Your task to perform on an android device: turn off picture-in-picture Image 0: 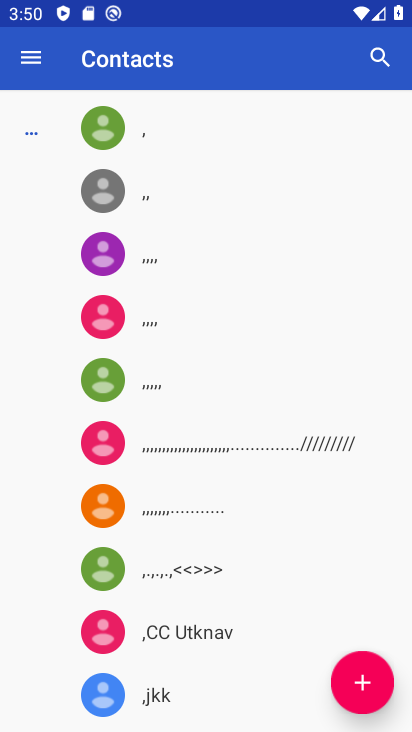
Step 0: press home button
Your task to perform on an android device: turn off picture-in-picture Image 1: 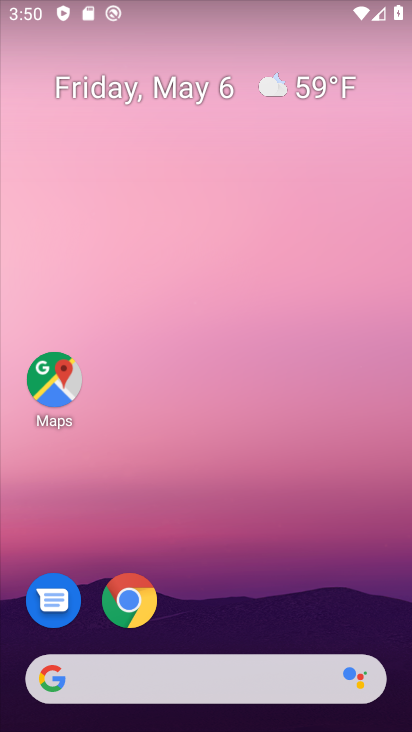
Step 1: drag from (225, 616) to (262, 128)
Your task to perform on an android device: turn off picture-in-picture Image 2: 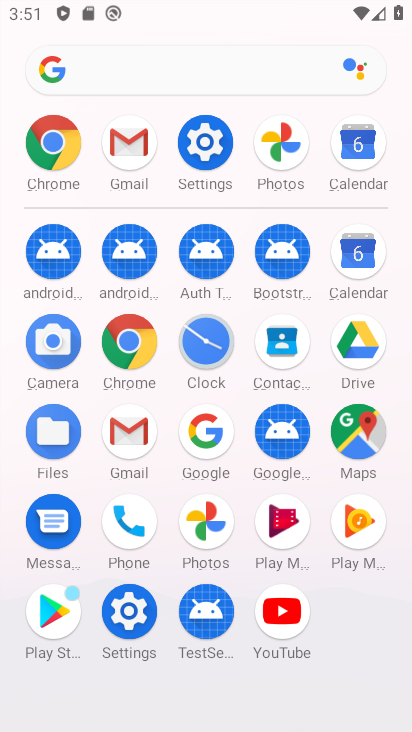
Step 2: click (115, 345)
Your task to perform on an android device: turn off picture-in-picture Image 3: 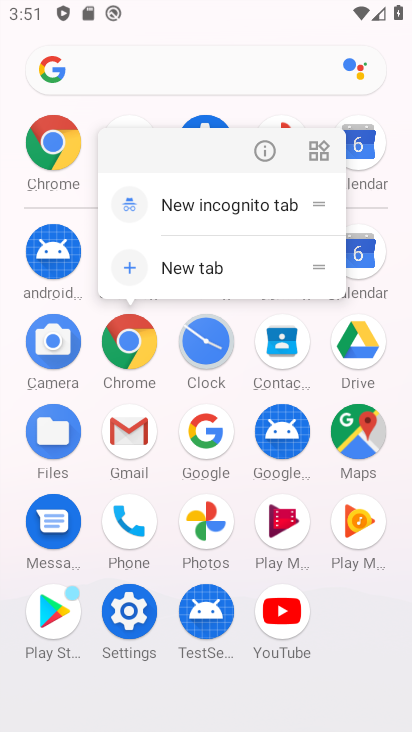
Step 3: click (260, 155)
Your task to perform on an android device: turn off picture-in-picture Image 4: 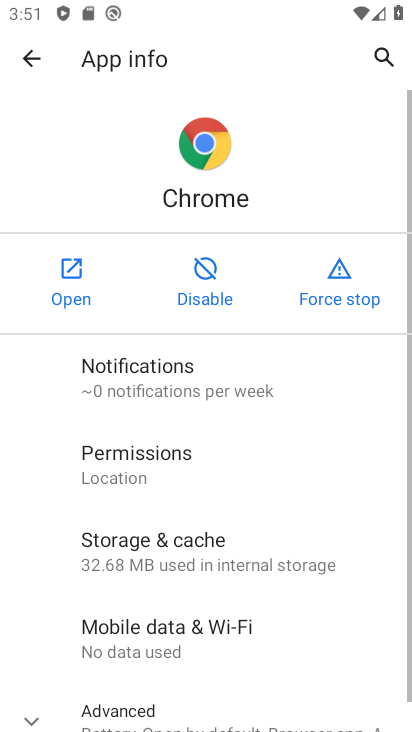
Step 4: drag from (226, 513) to (305, 10)
Your task to perform on an android device: turn off picture-in-picture Image 5: 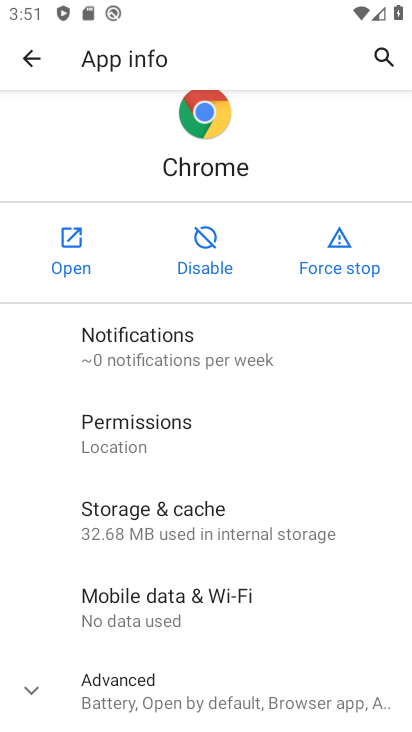
Step 5: drag from (194, 592) to (317, 59)
Your task to perform on an android device: turn off picture-in-picture Image 6: 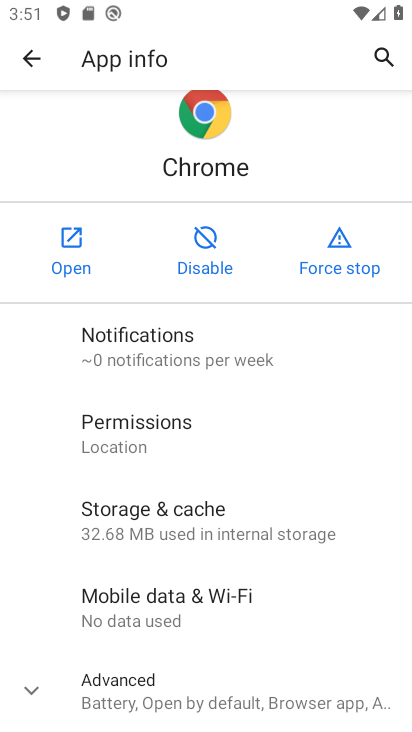
Step 6: drag from (182, 690) to (235, 290)
Your task to perform on an android device: turn off picture-in-picture Image 7: 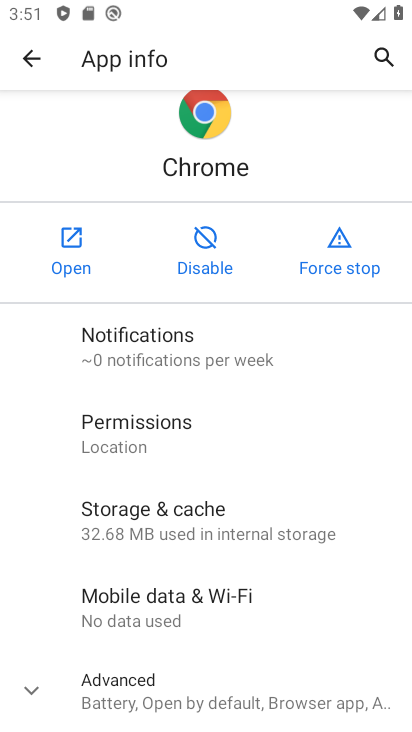
Step 7: click (127, 694)
Your task to perform on an android device: turn off picture-in-picture Image 8: 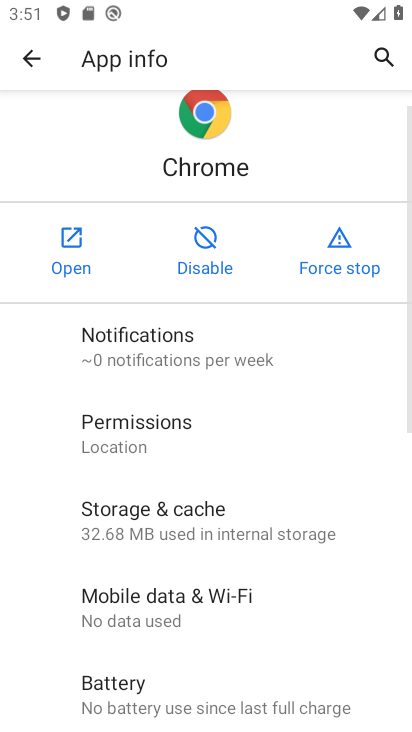
Step 8: drag from (161, 666) to (211, 281)
Your task to perform on an android device: turn off picture-in-picture Image 9: 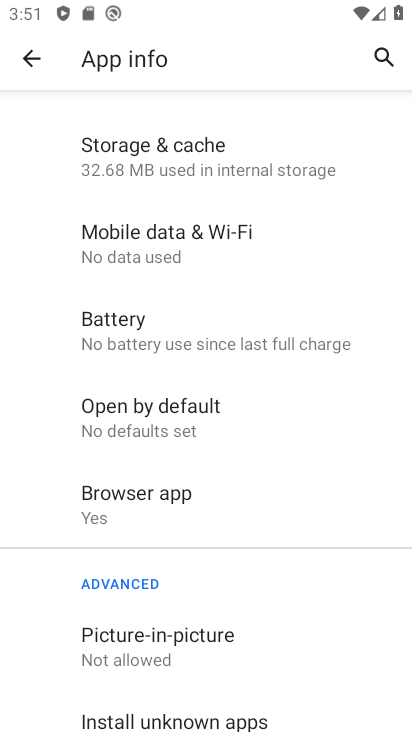
Step 9: drag from (204, 657) to (212, 406)
Your task to perform on an android device: turn off picture-in-picture Image 10: 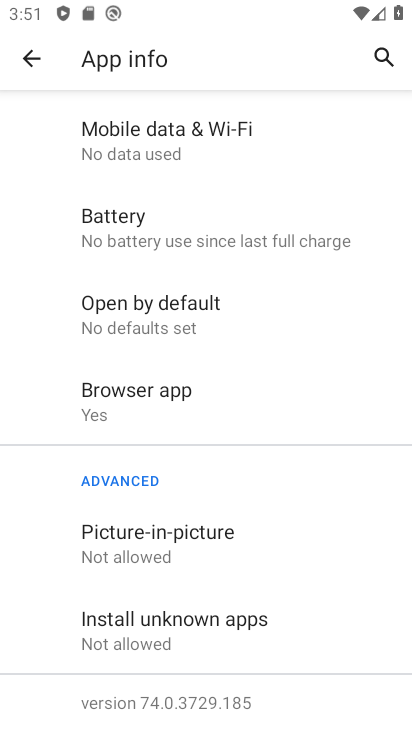
Step 10: click (167, 536)
Your task to perform on an android device: turn off picture-in-picture Image 11: 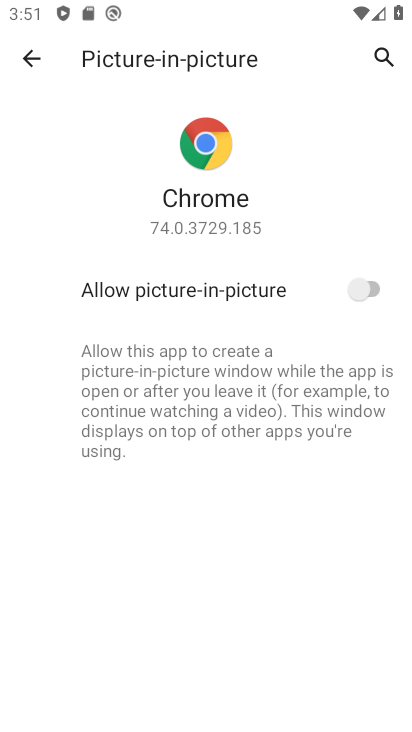
Step 11: task complete